Your task to perform on an android device: Open Google Chrome and open the bookmarks view Image 0: 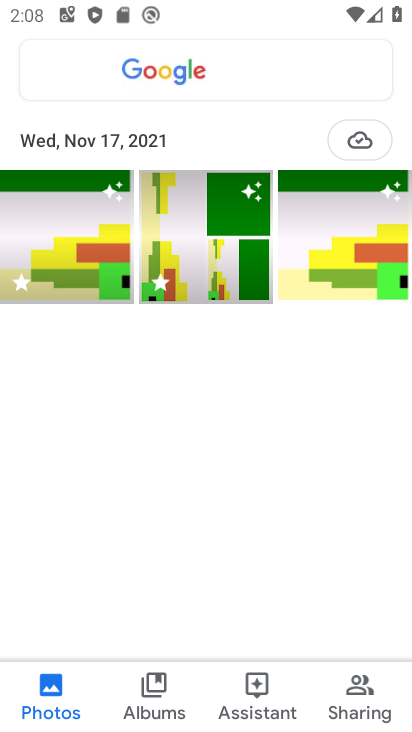
Step 0: press home button
Your task to perform on an android device: Open Google Chrome and open the bookmarks view Image 1: 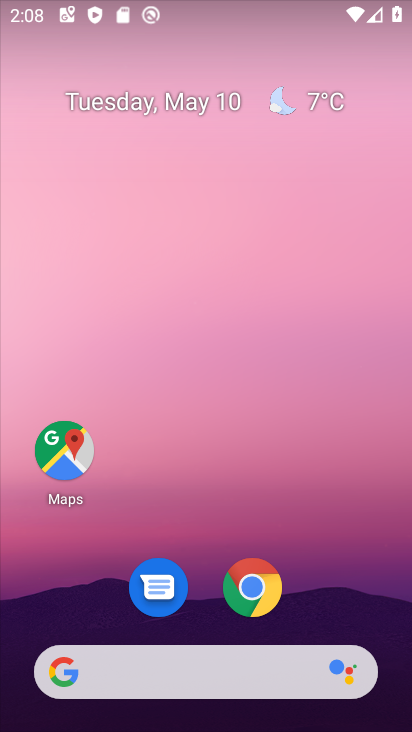
Step 1: click (251, 577)
Your task to perform on an android device: Open Google Chrome and open the bookmarks view Image 2: 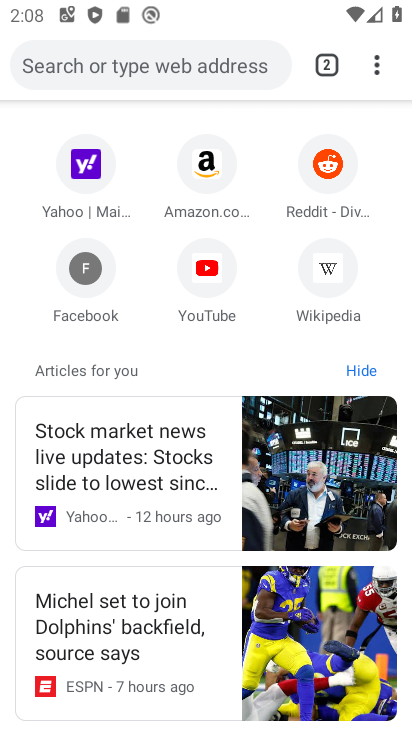
Step 2: click (382, 72)
Your task to perform on an android device: Open Google Chrome and open the bookmarks view Image 3: 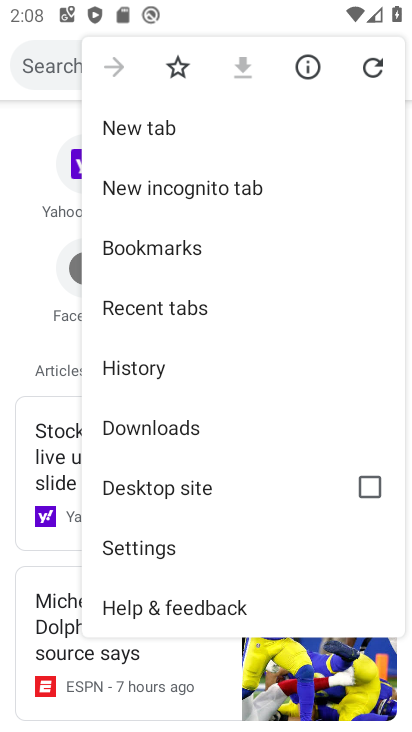
Step 3: click (173, 239)
Your task to perform on an android device: Open Google Chrome and open the bookmarks view Image 4: 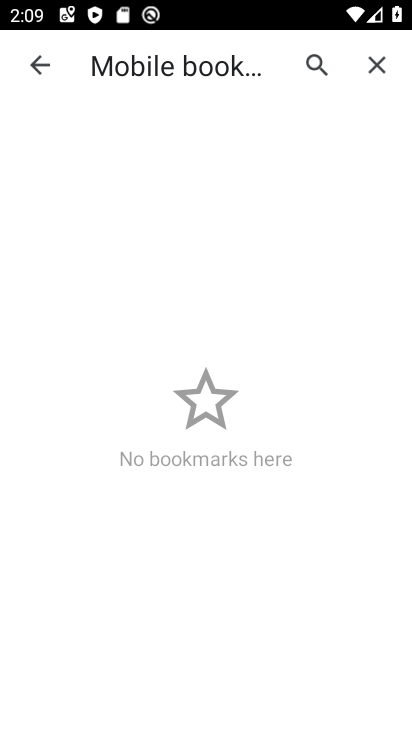
Step 4: task complete